Your task to perform on an android device: Check the weather Image 0: 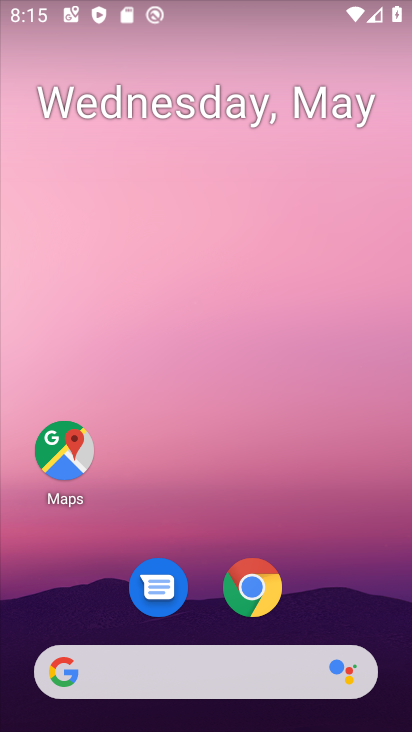
Step 0: drag from (4, 236) to (379, 253)
Your task to perform on an android device: Check the weather Image 1: 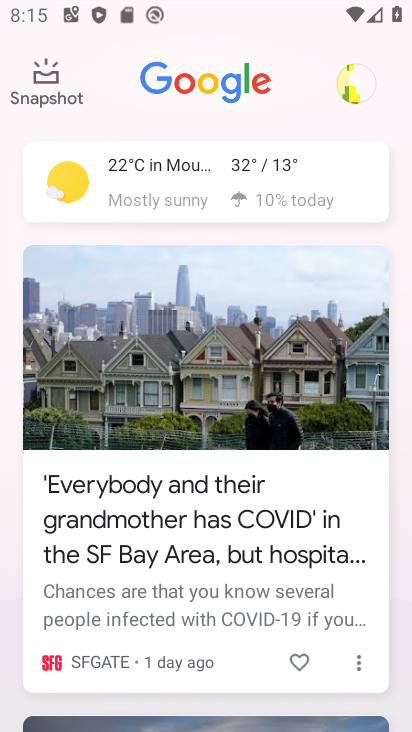
Step 1: click (298, 169)
Your task to perform on an android device: Check the weather Image 2: 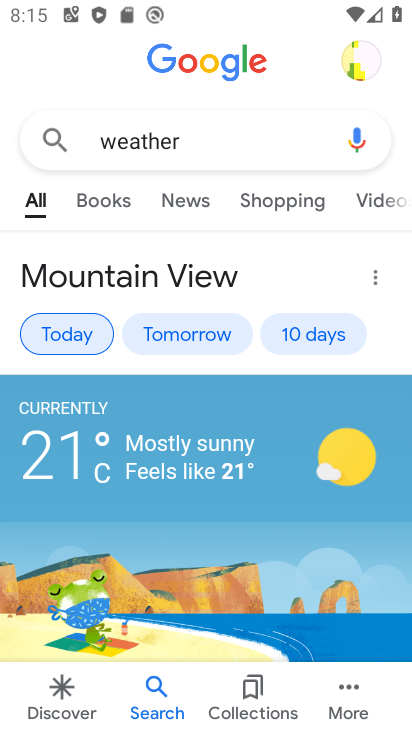
Step 2: task complete